Your task to perform on an android device: Search for Mexican restaurants on Maps Image 0: 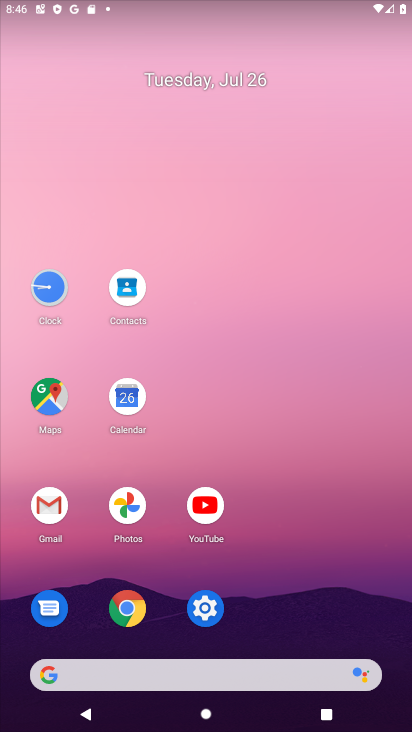
Step 0: click (43, 394)
Your task to perform on an android device: Search for Mexican restaurants on Maps Image 1: 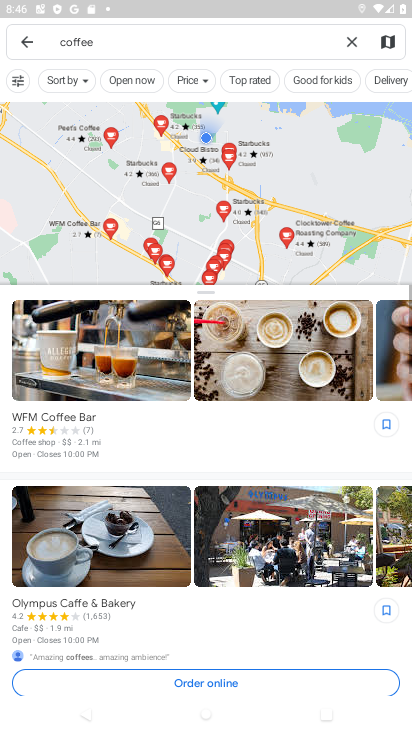
Step 1: click (355, 38)
Your task to perform on an android device: Search for Mexican restaurants on Maps Image 2: 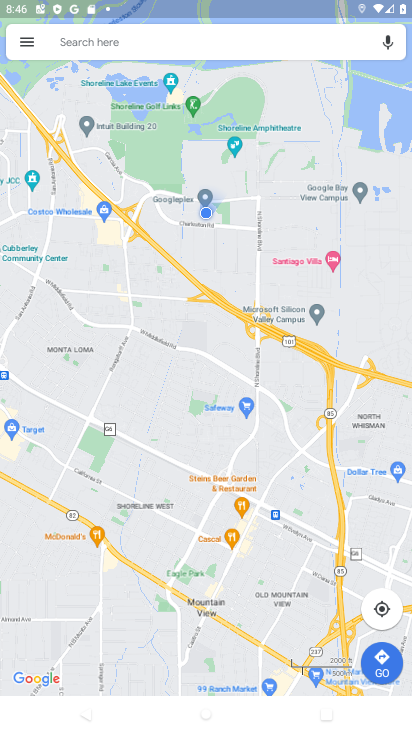
Step 2: click (153, 46)
Your task to perform on an android device: Search for Mexican restaurants on Maps Image 3: 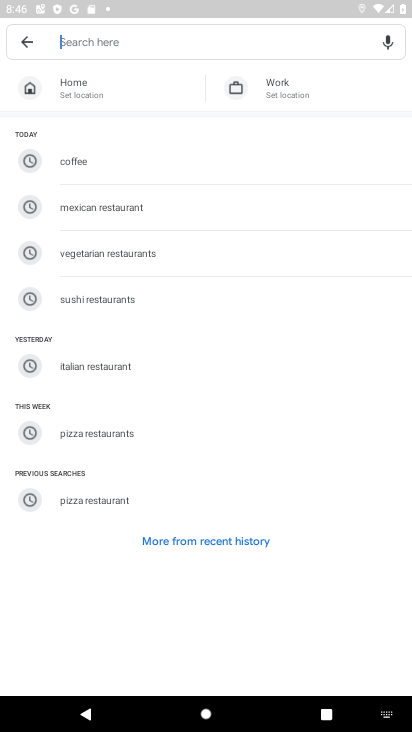
Step 3: click (97, 202)
Your task to perform on an android device: Search for Mexican restaurants on Maps Image 4: 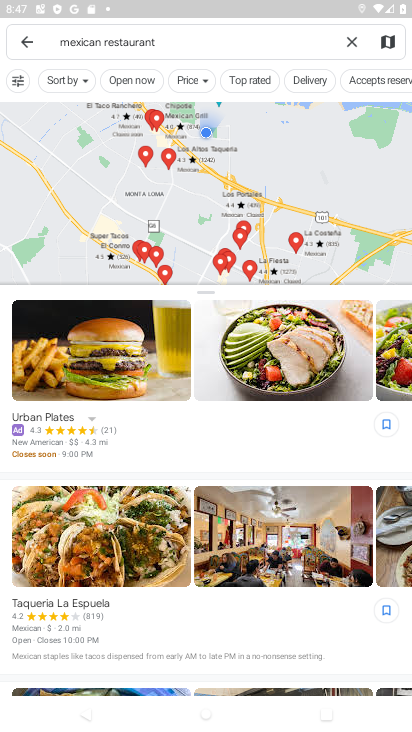
Step 4: task complete